Your task to perform on an android device: Go to Maps Image 0: 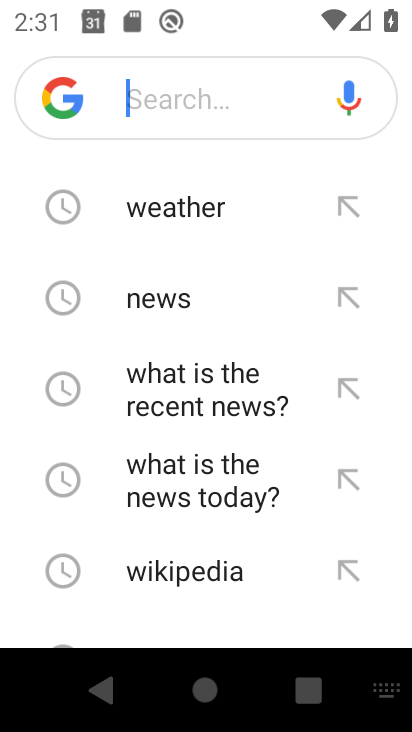
Step 0: press home button
Your task to perform on an android device: Go to Maps Image 1: 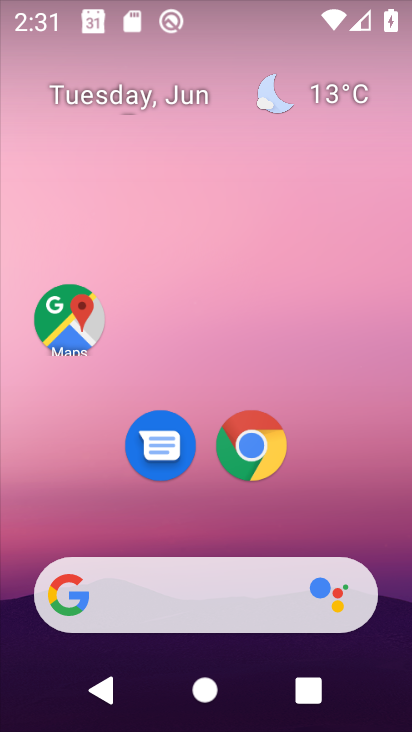
Step 1: click (77, 328)
Your task to perform on an android device: Go to Maps Image 2: 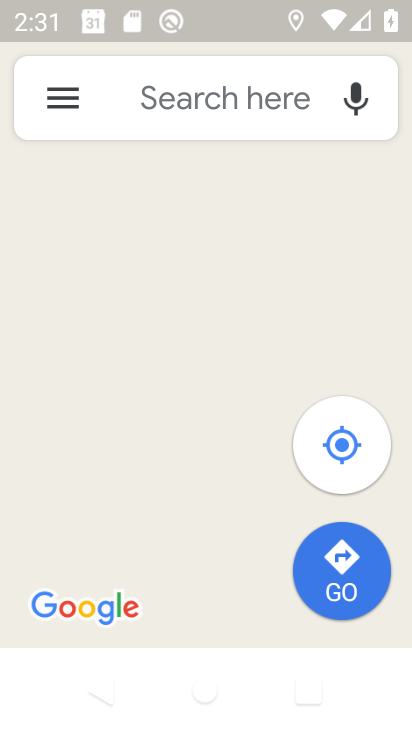
Step 2: task complete